Your task to perform on an android device: change alarm snooze length Image 0: 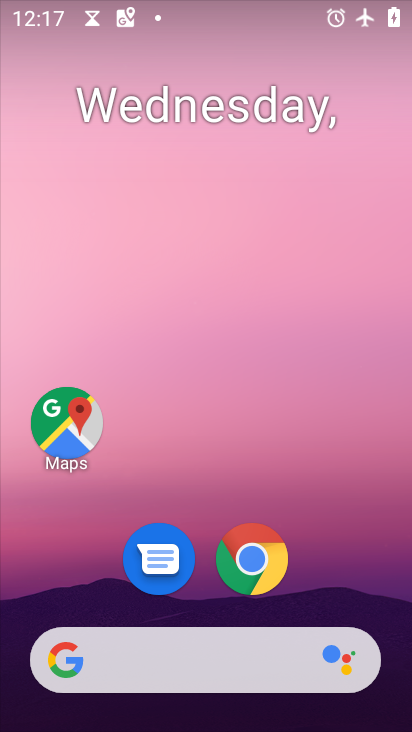
Step 0: drag from (346, 597) to (297, 151)
Your task to perform on an android device: change alarm snooze length Image 1: 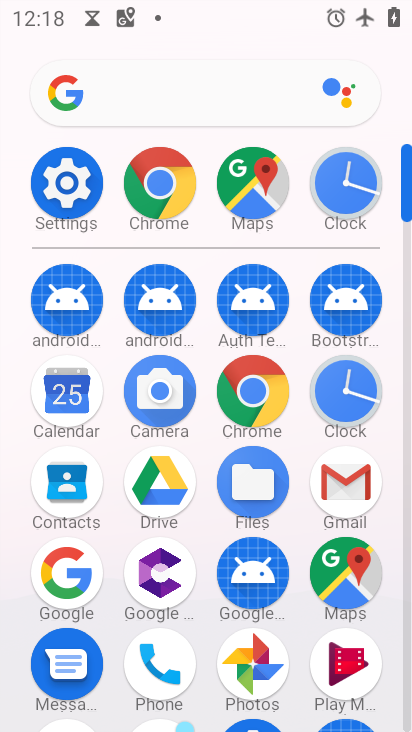
Step 1: click (50, 185)
Your task to perform on an android device: change alarm snooze length Image 2: 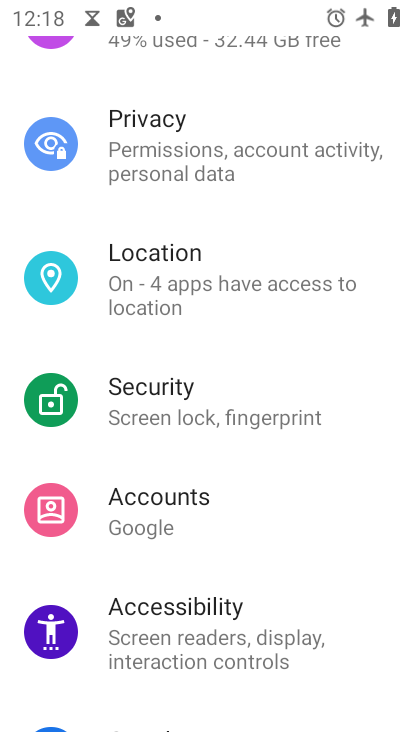
Step 2: drag from (252, 230) to (252, 563)
Your task to perform on an android device: change alarm snooze length Image 3: 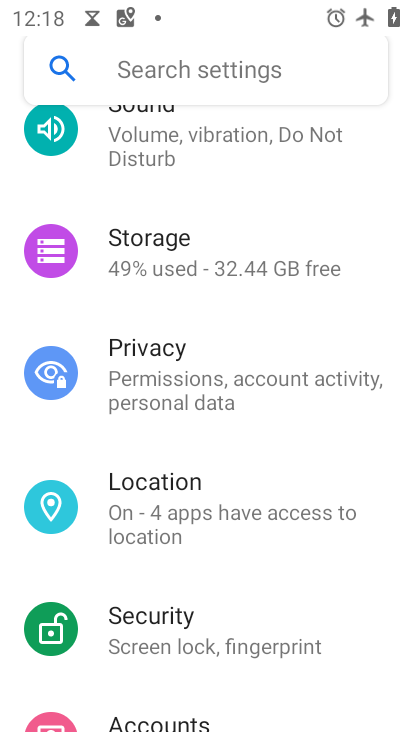
Step 3: press home button
Your task to perform on an android device: change alarm snooze length Image 4: 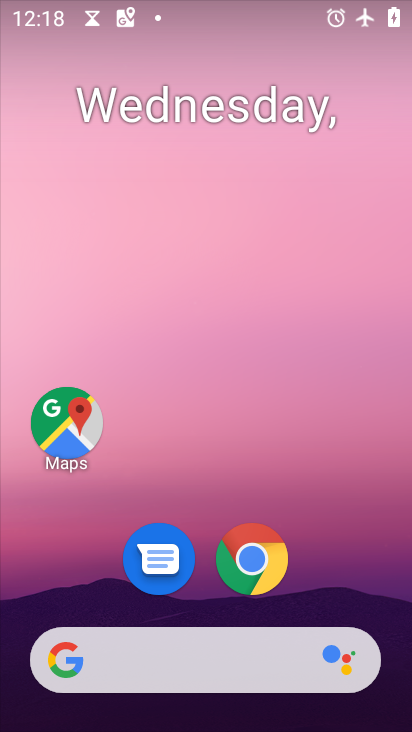
Step 4: drag from (345, 570) to (294, 5)
Your task to perform on an android device: change alarm snooze length Image 5: 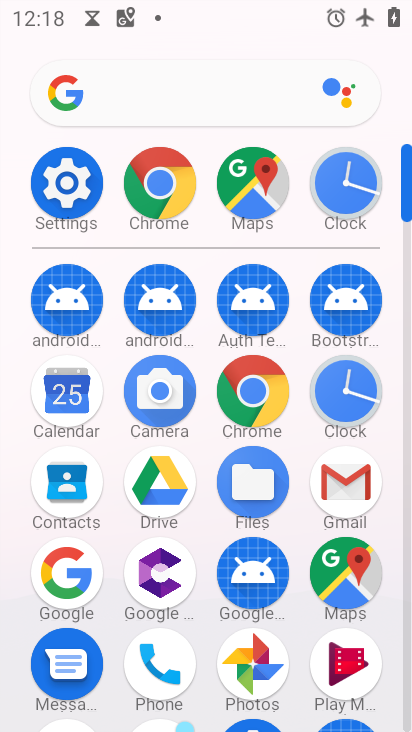
Step 5: click (344, 191)
Your task to perform on an android device: change alarm snooze length Image 6: 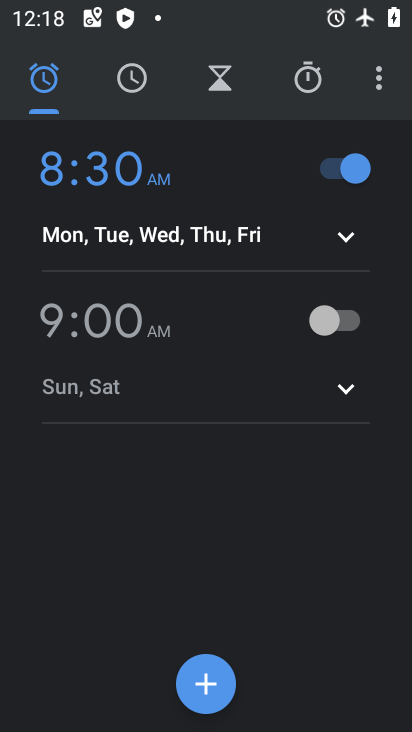
Step 6: click (380, 92)
Your task to perform on an android device: change alarm snooze length Image 7: 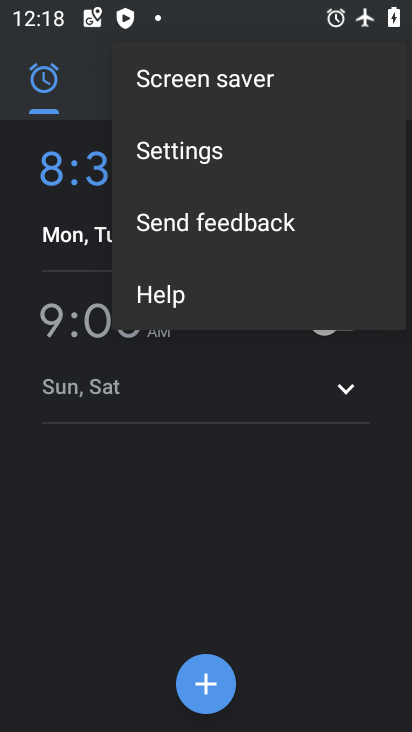
Step 7: click (196, 163)
Your task to perform on an android device: change alarm snooze length Image 8: 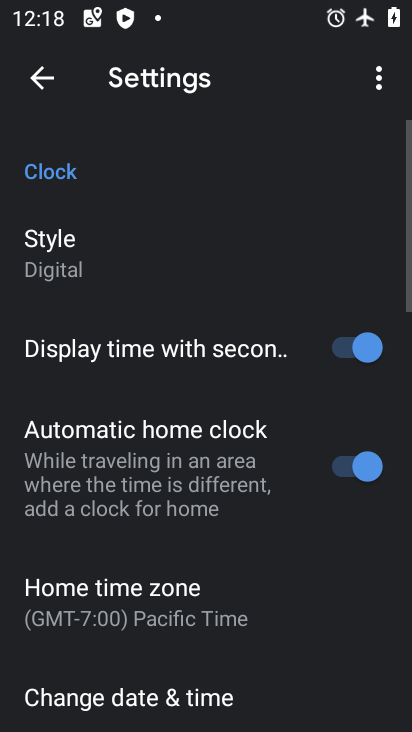
Step 8: drag from (221, 555) to (206, 202)
Your task to perform on an android device: change alarm snooze length Image 9: 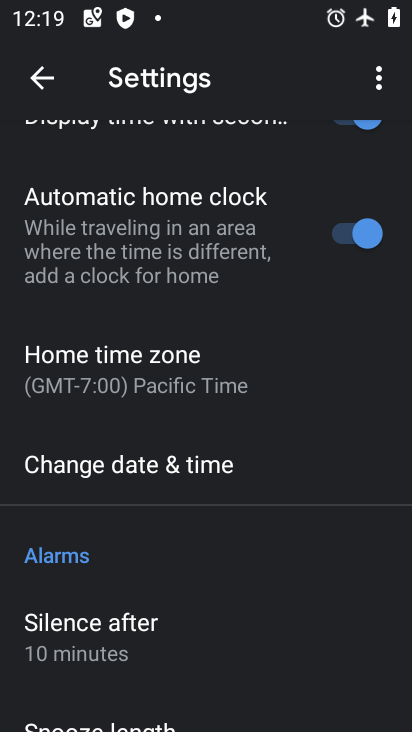
Step 9: drag from (235, 593) to (248, 189)
Your task to perform on an android device: change alarm snooze length Image 10: 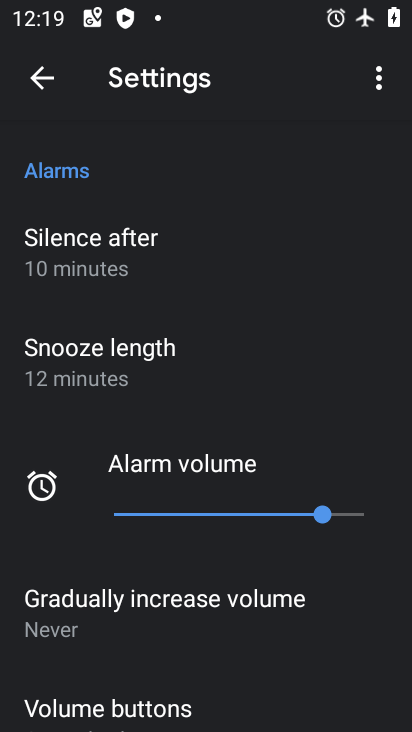
Step 10: click (121, 362)
Your task to perform on an android device: change alarm snooze length Image 11: 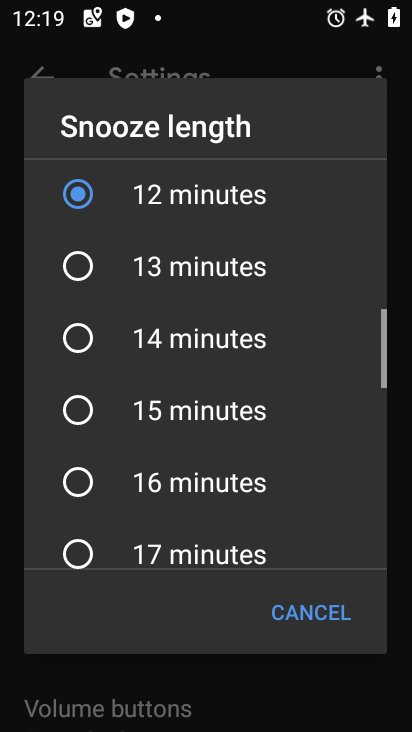
Step 11: click (94, 409)
Your task to perform on an android device: change alarm snooze length Image 12: 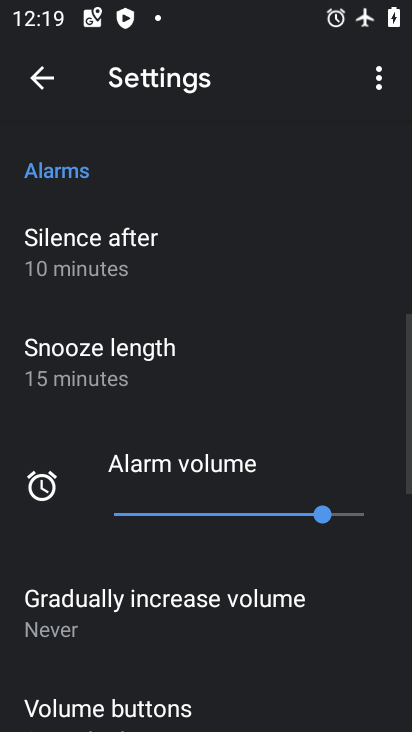
Step 12: task complete